Your task to perform on an android device: Go to settings Image 0: 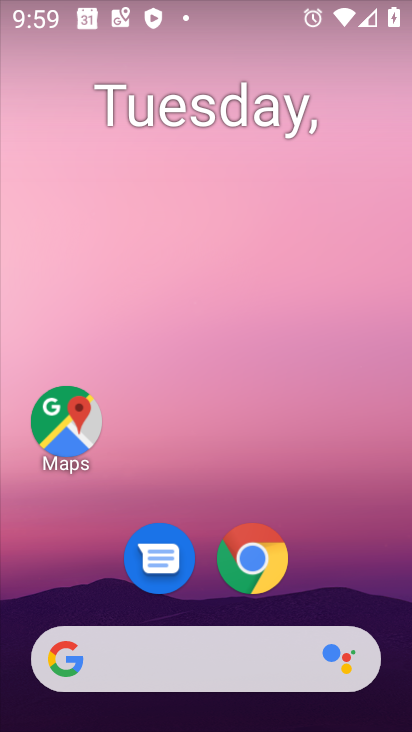
Step 0: drag from (355, 686) to (193, 253)
Your task to perform on an android device: Go to settings Image 1: 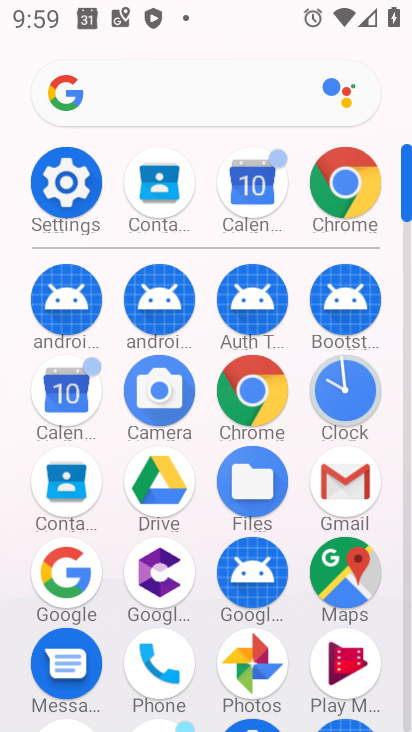
Step 1: click (74, 198)
Your task to perform on an android device: Go to settings Image 2: 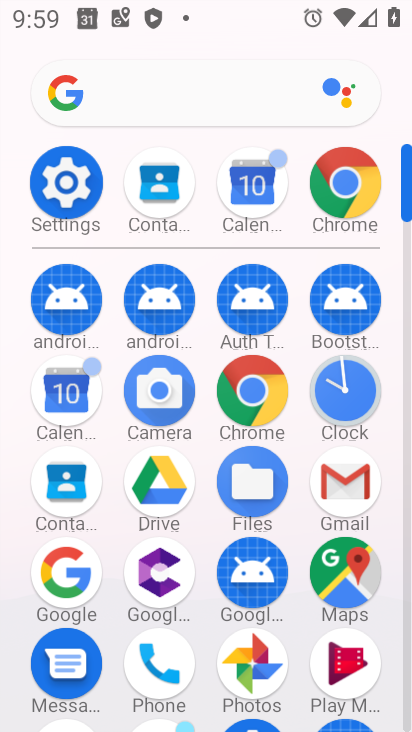
Step 2: click (74, 198)
Your task to perform on an android device: Go to settings Image 3: 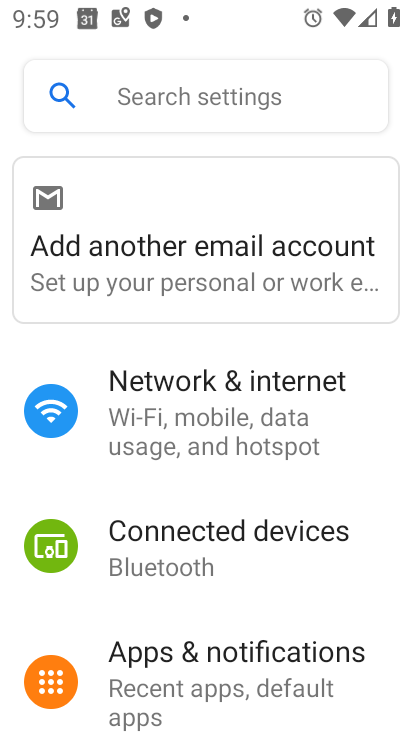
Step 3: task complete